Your task to perform on an android device: move a message to another label in the gmail app Image 0: 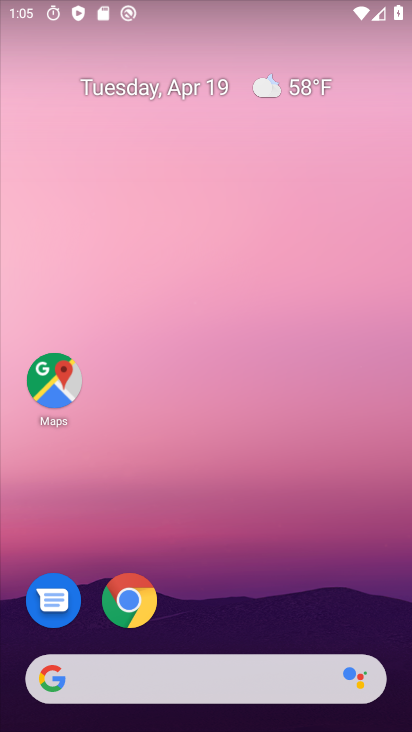
Step 0: drag from (275, 690) to (328, 302)
Your task to perform on an android device: move a message to another label in the gmail app Image 1: 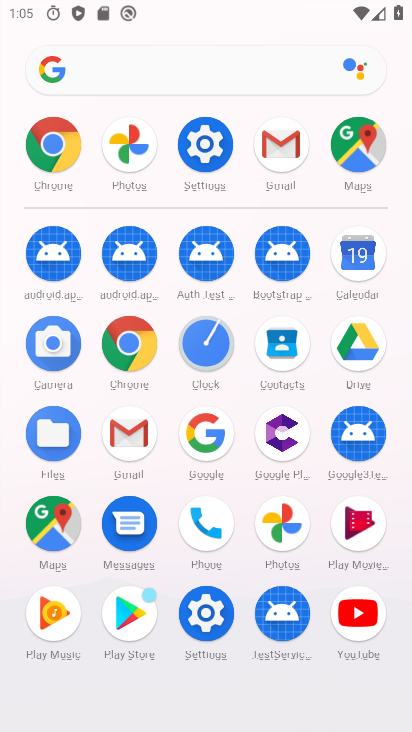
Step 1: click (289, 166)
Your task to perform on an android device: move a message to another label in the gmail app Image 2: 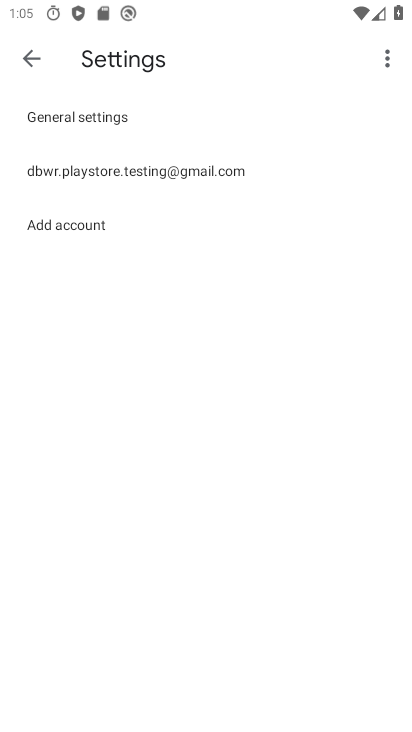
Step 2: click (154, 167)
Your task to perform on an android device: move a message to another label in the gmail app Image 3: 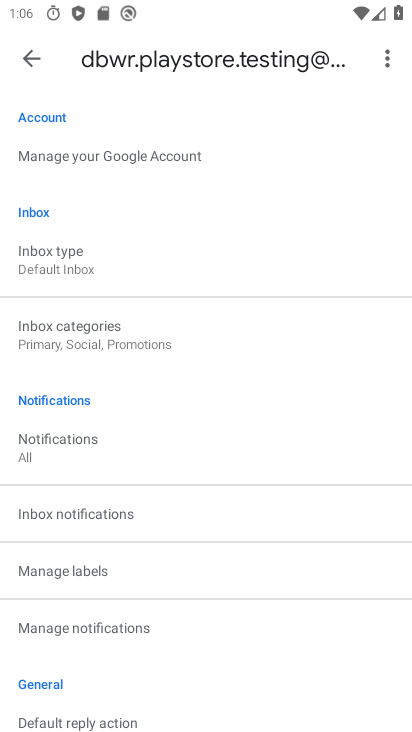
Step 3: drag from (111, 522) to (178, 435)
Your task to perform on an android device: move a message to another label in the gmail app Image 4: 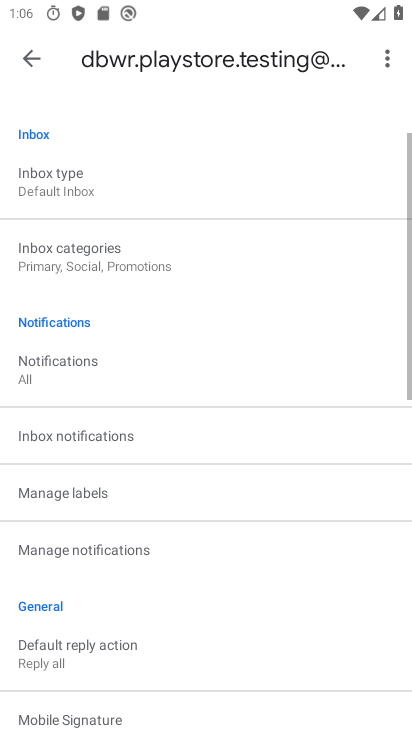
Step 4: click (38, 499)
Your task to perform on an android device: move a message to another label in the gmail app Image 5: 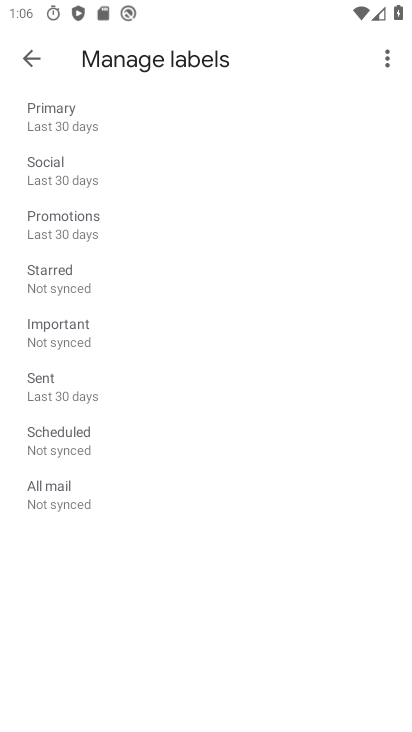
Step 5: click (88, 440)
Your task to perform on an android device: move a message to another label in the gmail app Image 6: 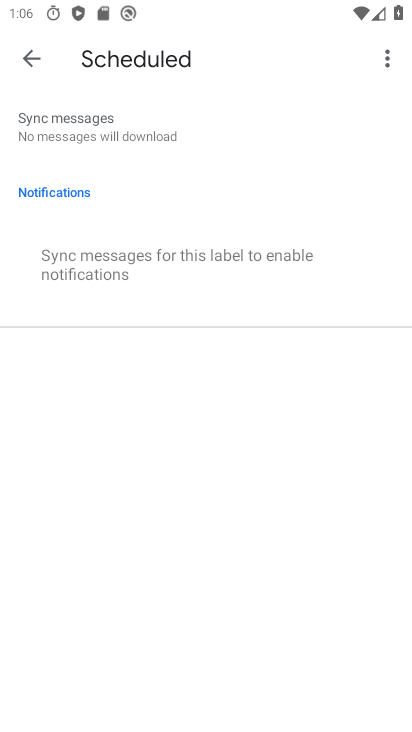
Step 6: task complete